Your task to perform on an android device: uninstall "ColorNote Notepad Notes" Image 0: 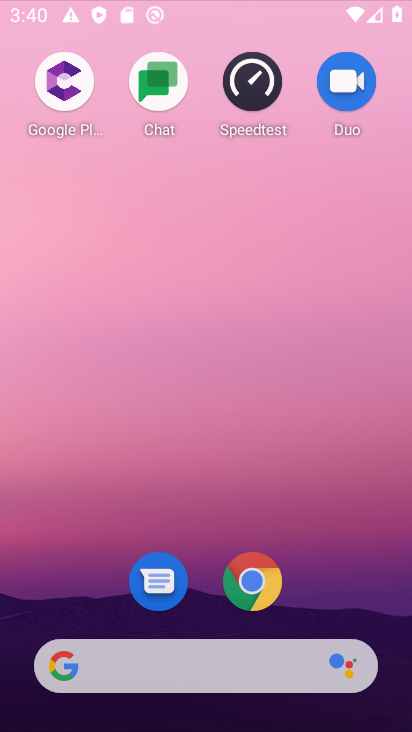
Step 0: press home button
Your task to perform on an android device: uninstall "ColorNote Notepad Notes" Image 1: 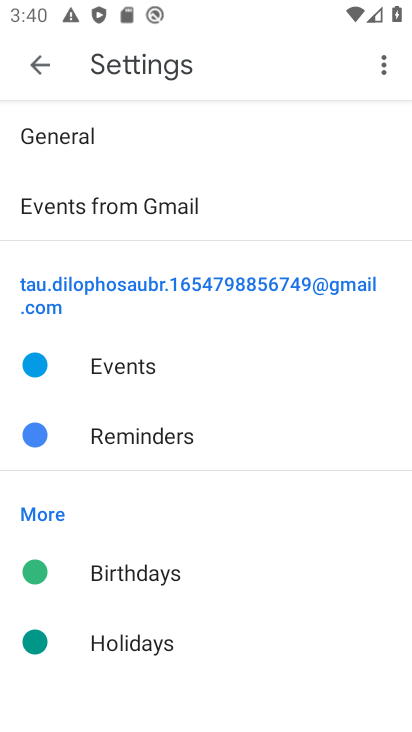
Step 1: drag from (306, 382) to (304, 121)
Your task to perform on an android device: uninstall "ColorNote Notepad Notes" Image 2: 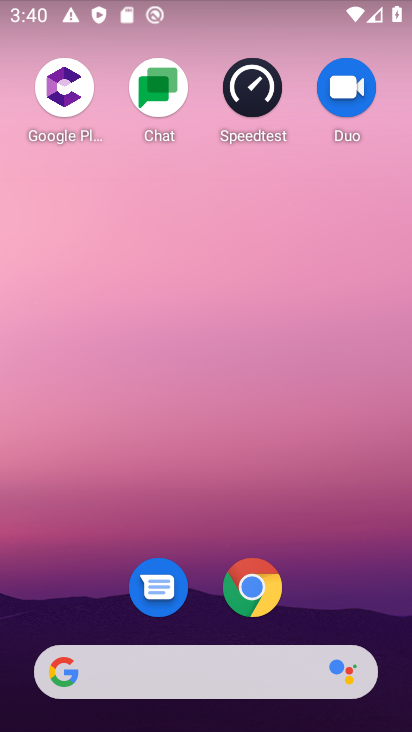
Step 2: drag from (319, 603) to (320, 0)
Your task to perform on an android device: uninstall "ColorNote Notepad Notes" Image 3: 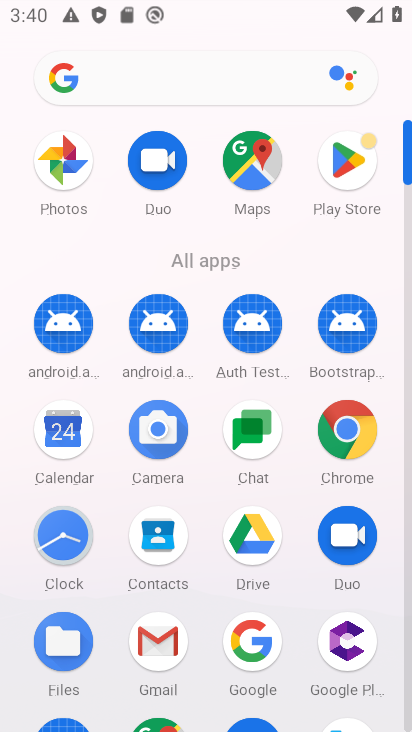
Step 3: click (353, 161)
Your task to perform on an android device: uninstall "ColorNote Notepad Notes" Image 4: 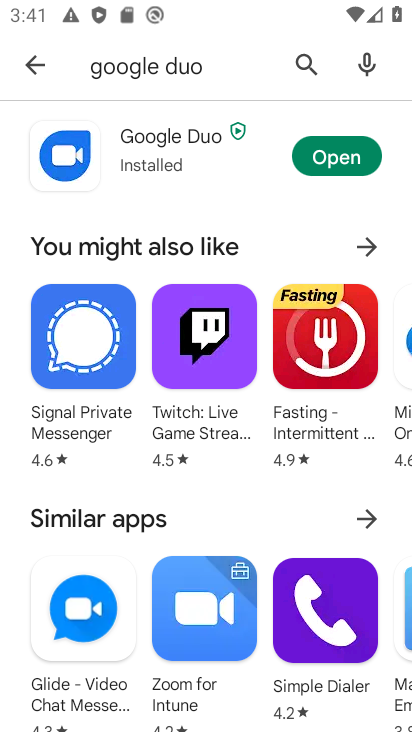
Step 4: click (301, 66)
Your task to perform on an android device: uninstall "ColorNote Notepad Notes" Image 5: 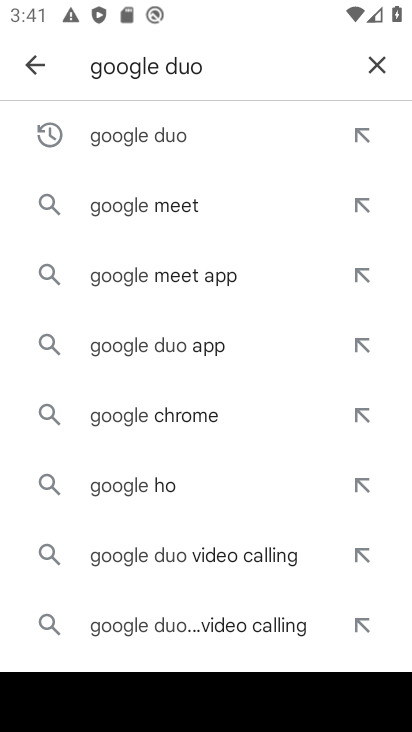
Step 5: click (378, 66)
Your task to perform on an android device: uninstall "ColorNote Notepad Notes" Image 6: 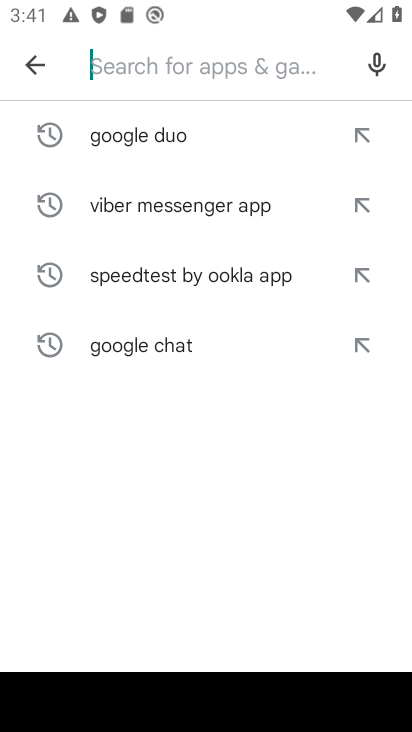
Step 6: type "ColorNote Notepad Notes"
Your task to perform on an android device: uninstall "ColorNote Notepad Notes" Image 7: 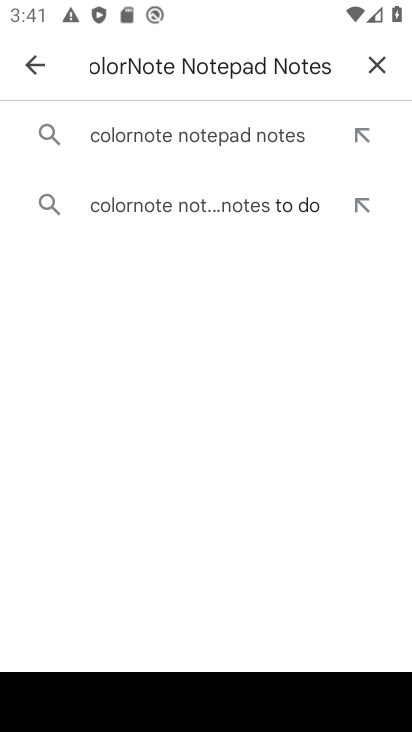
Step 7: click (283, 129)
Your task to perform on an android device: uninstall "ColorNote Notepad Notes" Image 8: 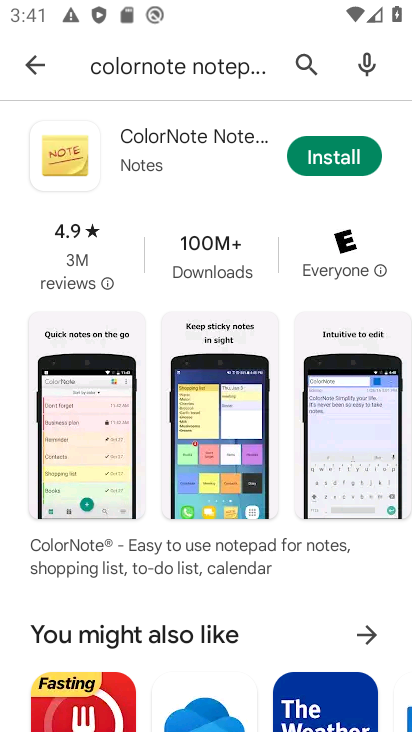
Step 8: task complete